Your task to perform on an android device: turn on bluetooth scan Image 0: 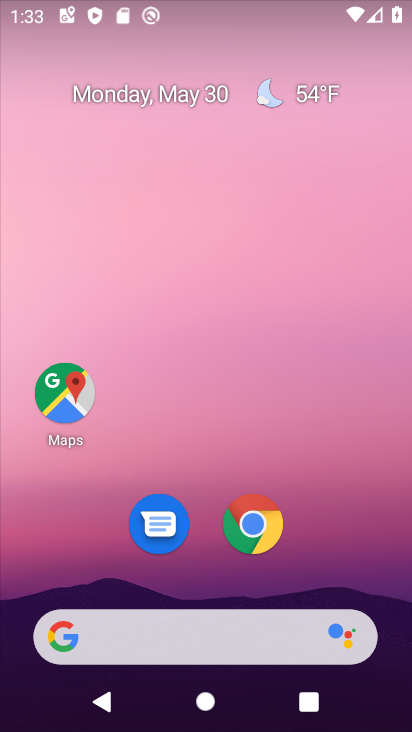
Step 0: drag from (233, 457) to (212, 2)
Your task to perform on an android device: turn on bluetooth scan Image 1: 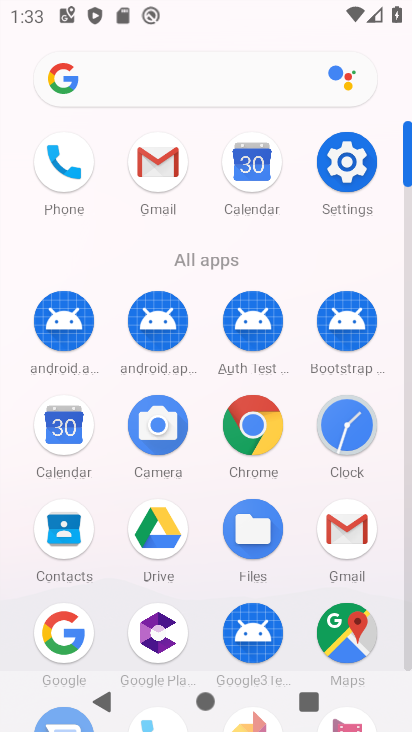
Step 1: click (331, 164)
Your task to perform on an android device: turn on bluetooth scan Image 2: 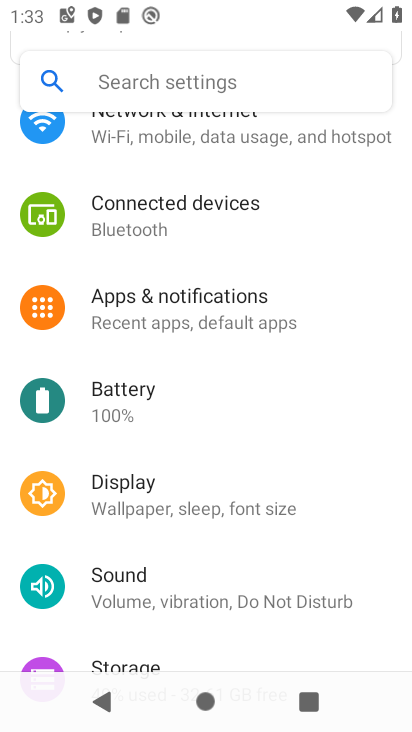
Step 2: drag from (233, 437) to (278, 2)
Your task to perform on an android device: turn on bluetooth scan Image 3: 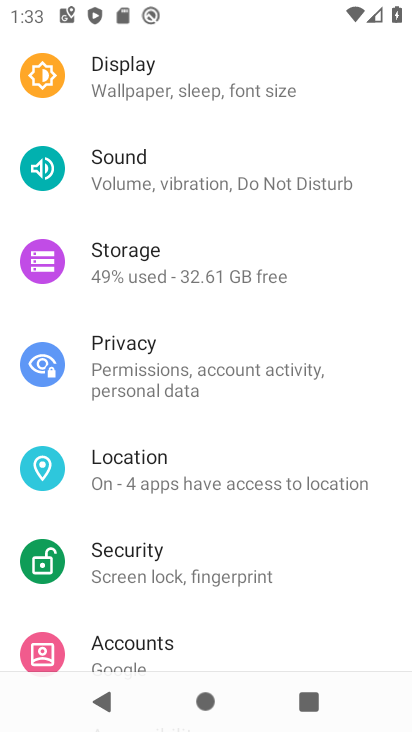
Step 3: click (216, 477)
Your task to perform on an android device: turn on bluetooth scan Image 4: 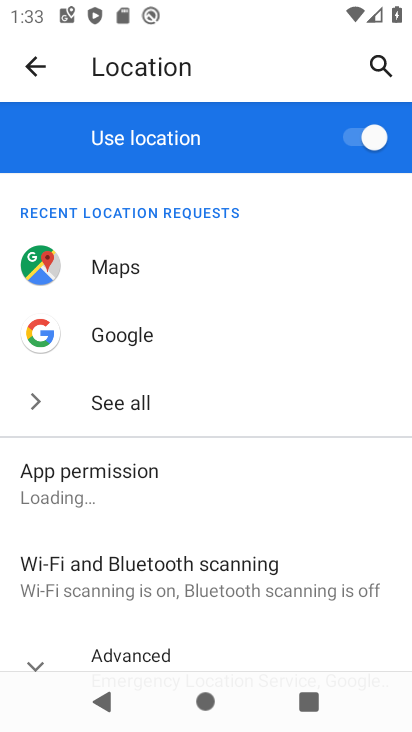
Step 4: drag from (216, 476) to (241, 185)
Your task to perform on an android device: turn on bluetooth scan Image 5: 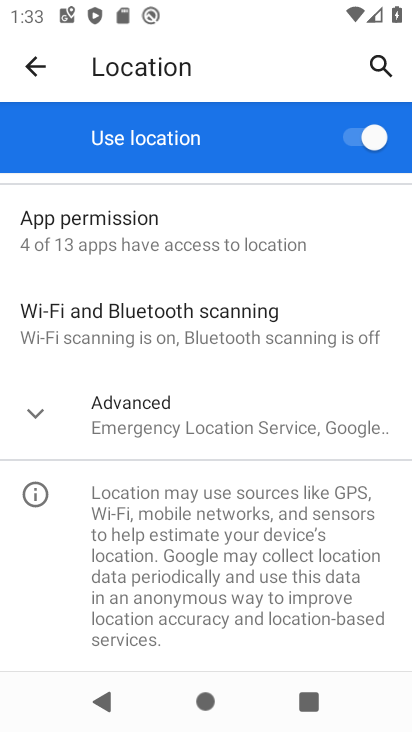
Step 5: click (267, 307)
Your task to perform on an android device: turn on bluetooth scan Image 6: 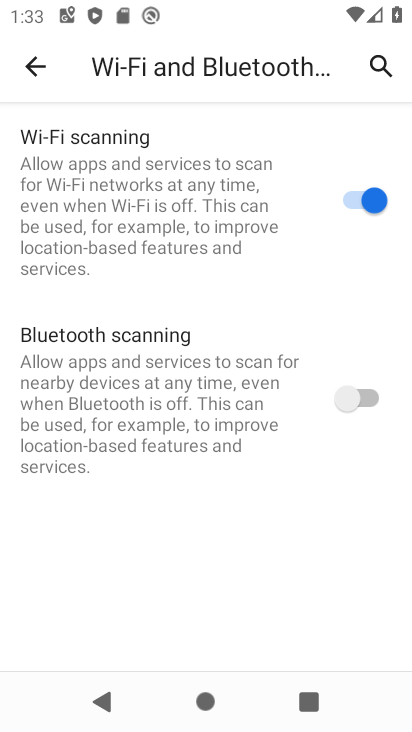
Step 6: click (345, 396)
Your task to perform on an android device: turn on bluetooth scan Image 7: 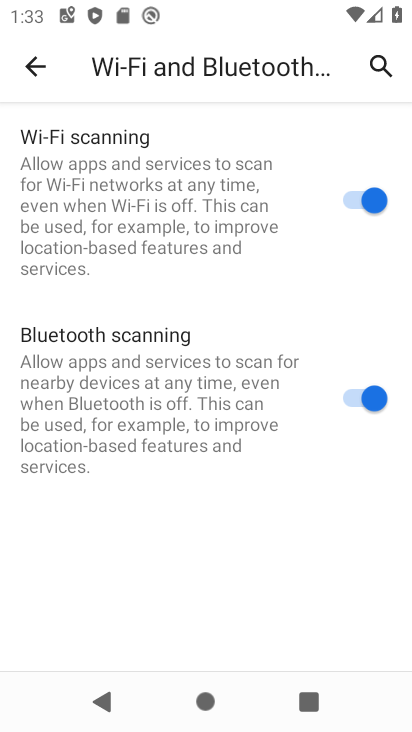
Step 7: task complete